Your task to perform on an android device: create a new album in the google photos Image 0: 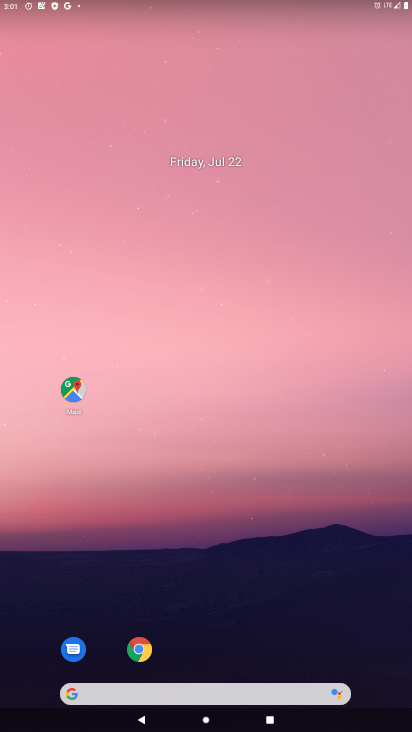
Step 0: drag from (291, 629) to (294, 119)
Your task to perform on an android device: create a new album in the google photos Image 1: 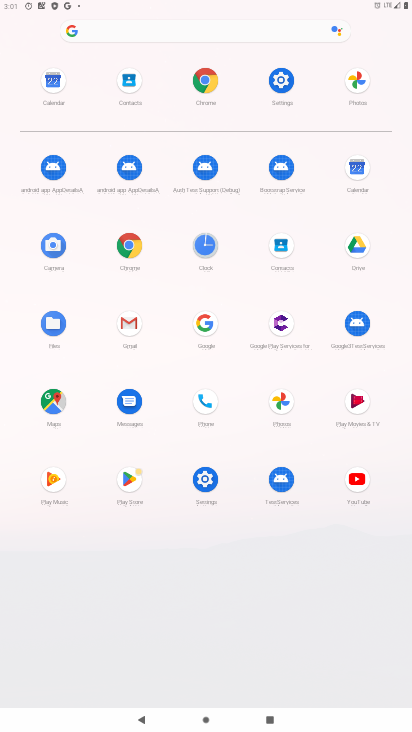
Step 1: click (283, 403)
Your task to perform on an android device: create a new album in the google photos Image 2: 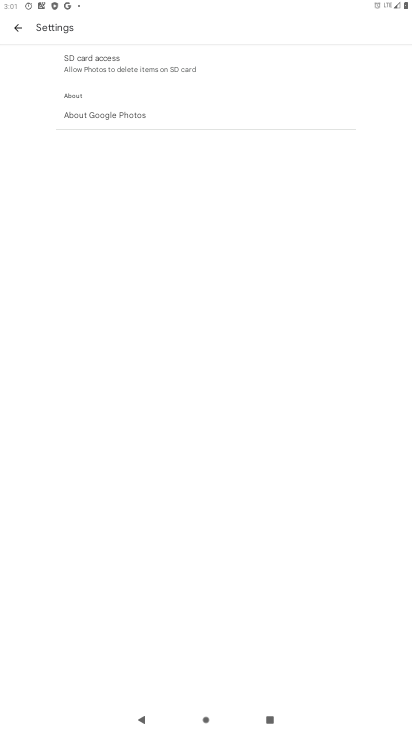
Step 2: click (17, 30)
Your task to perform on an android device: create a new album in the google photos Image 3: 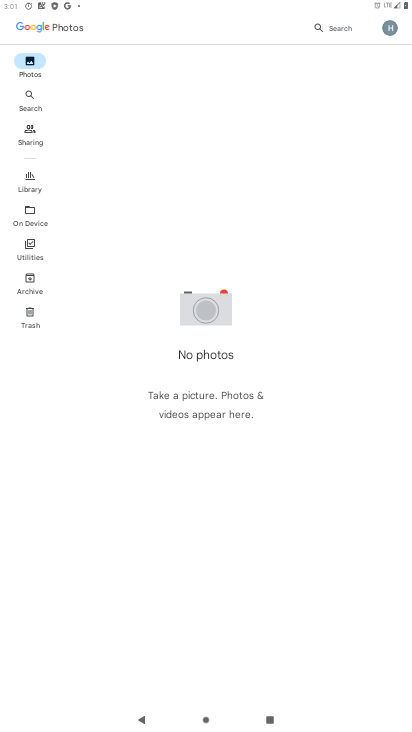
Step 3: click (34, 189)
Your task to perform on an android device: create a new album in the google photos Image 4: 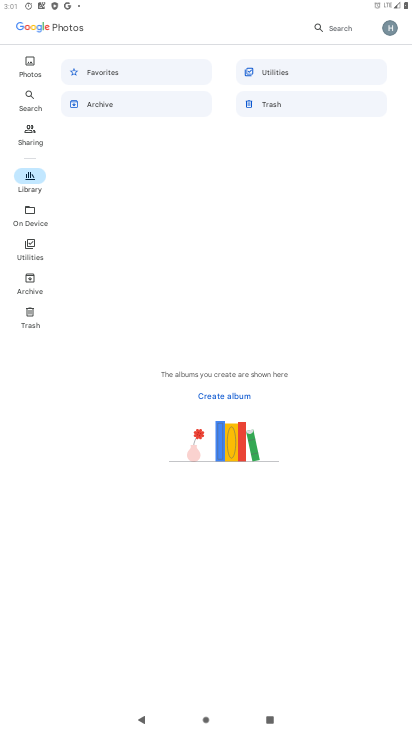
Step 4: click (226, 397)
Your task to perform on an android device: create a new album in the google photos Image 5: 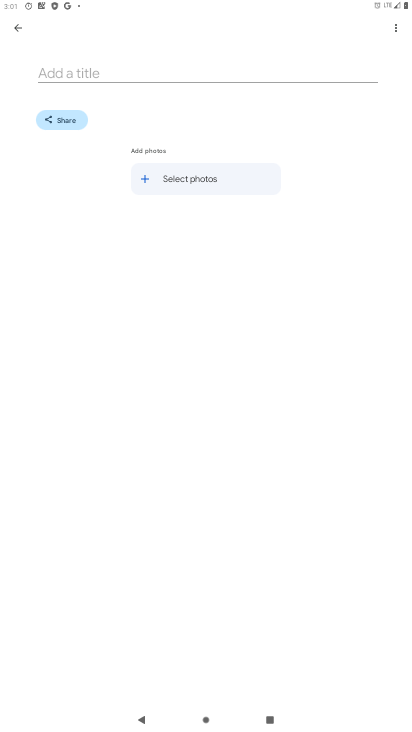
Step 5: click (175, 79)
Your task to perform on an android device: create a new album in the google photos Image 6: 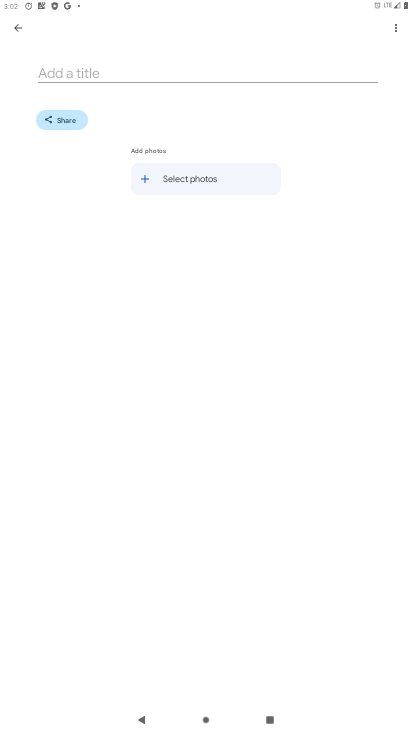
Step 6: click (175, 72)
Your task to perform on an android device: create a new album in the google photos Image 7: 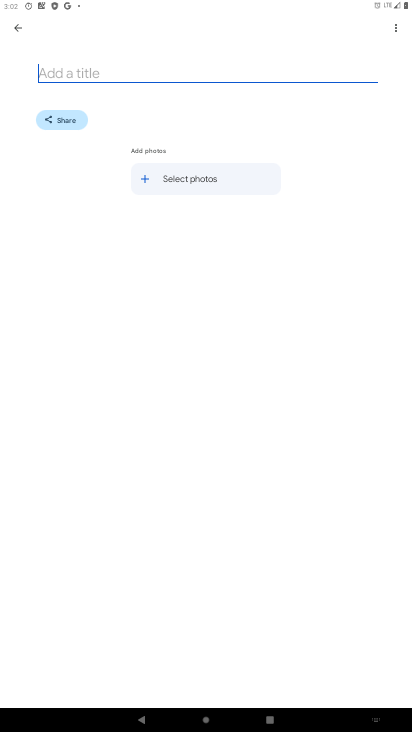
Step 7: type "hunmsdeer"
Your task to perform on an android device: create a new album in the google photos Image 8: 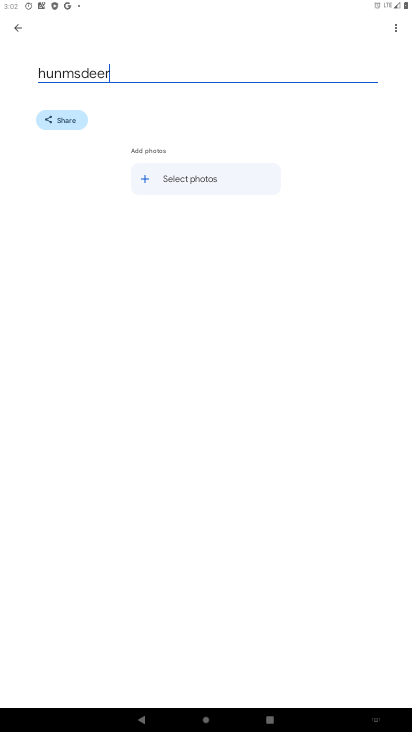
Step 8: task complete